Your task to perform on an android device: Go to Wikipedia Image 0: 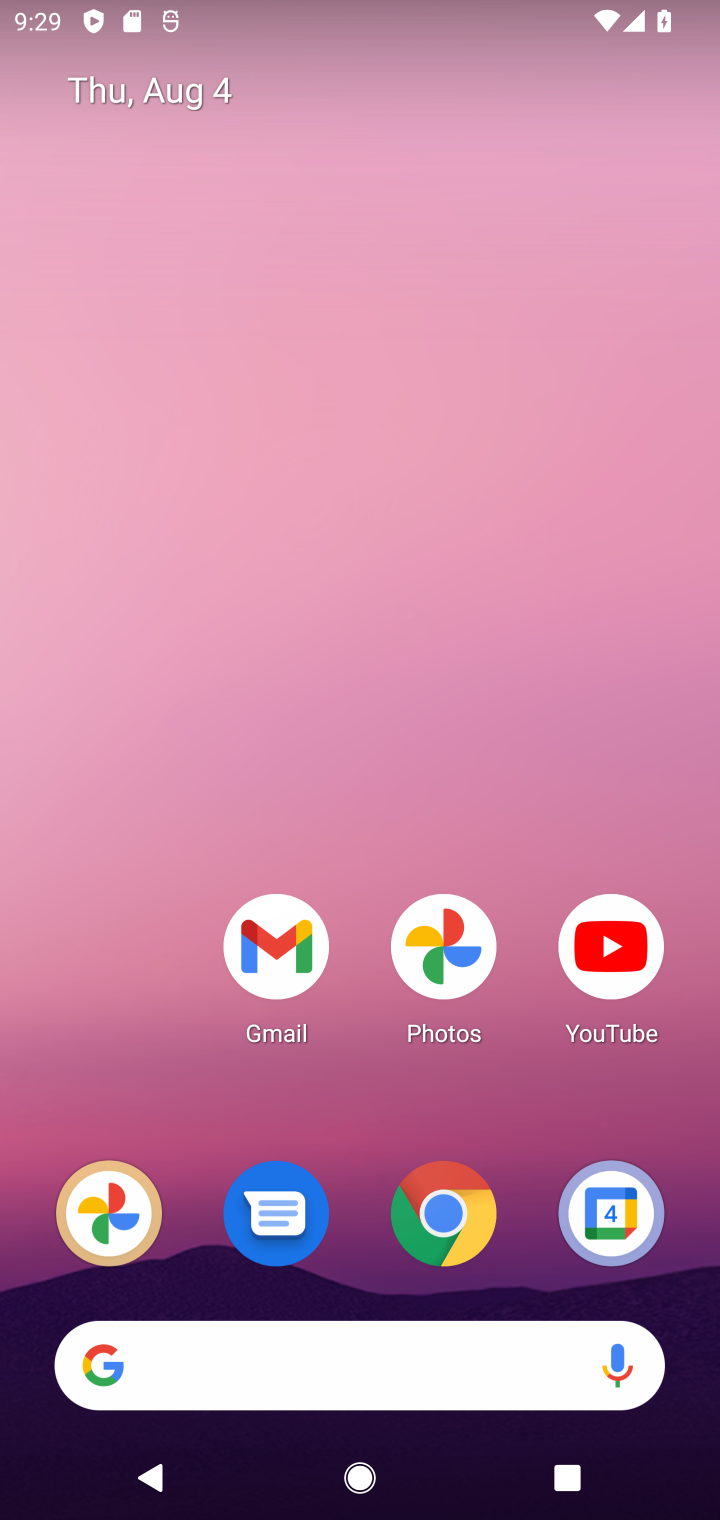
Step 0: press home button
Your task to perform on an android device: Go to Wikipedia Image 1: 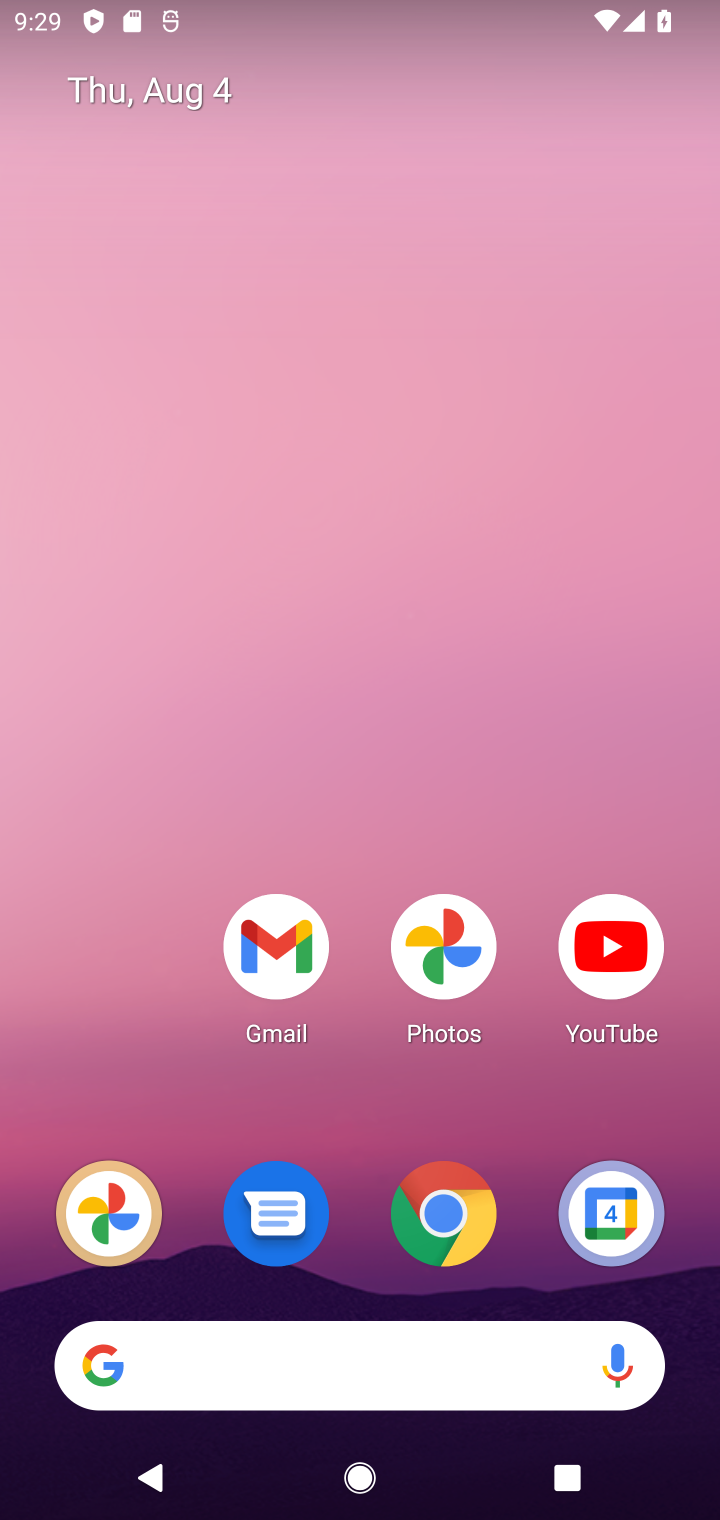
Step 1: drag from (371, 1144) to (371, 117)
Your task to perform on an android device: Go to Wikipedia Image 2: 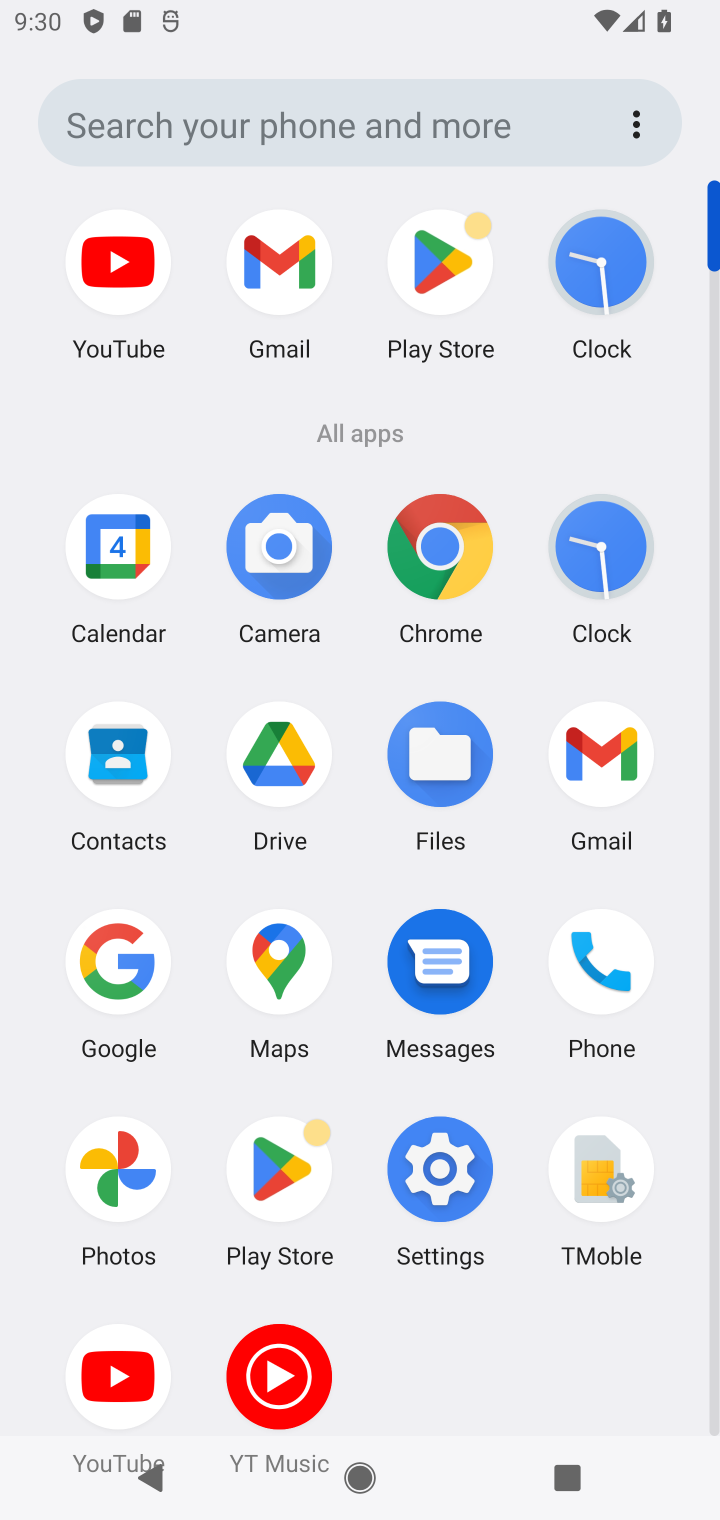
Step 2: click (434, 544)
Your task to perform on an android device: Go to Wikipedia Image 3: 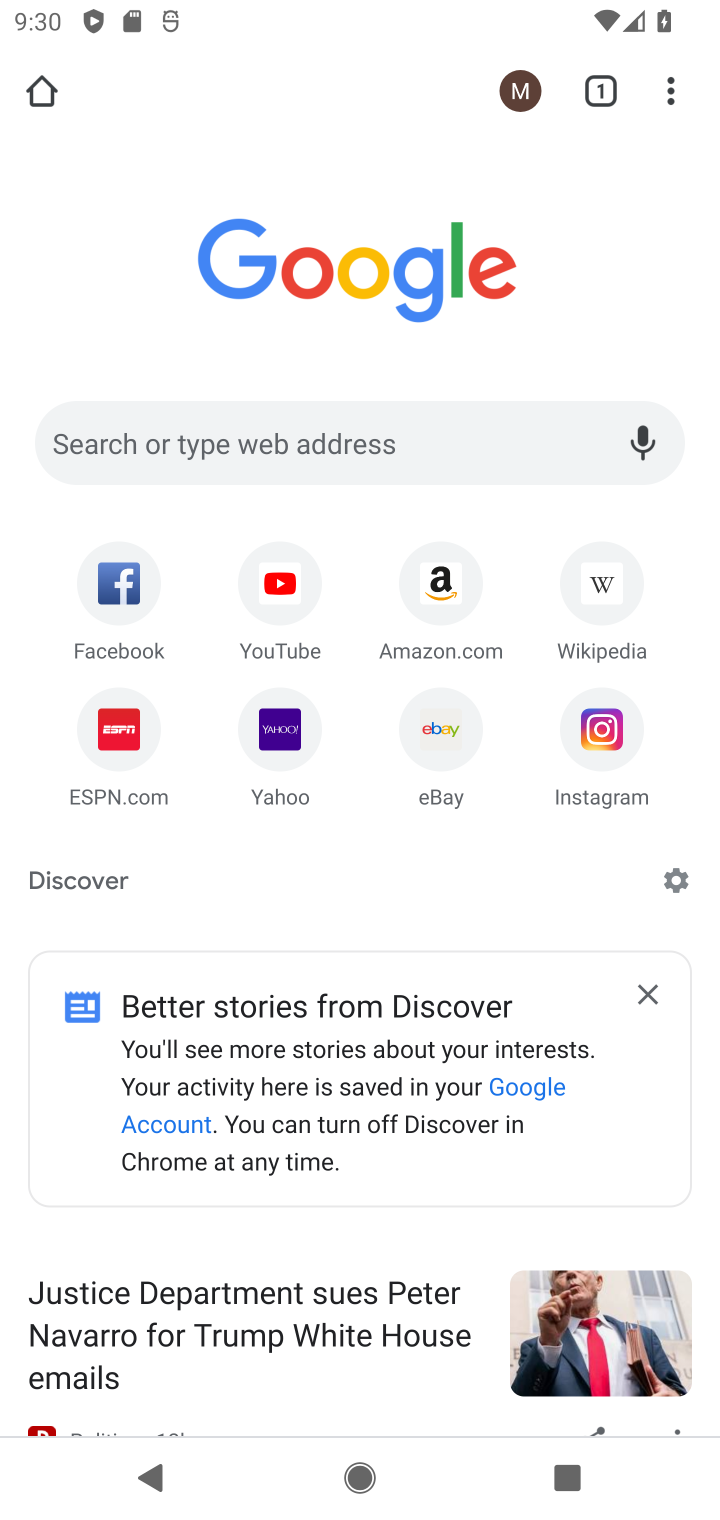
Step 3: click (596, 586)
Your task to perform on an android device: Go to Wikipedia Image 4: 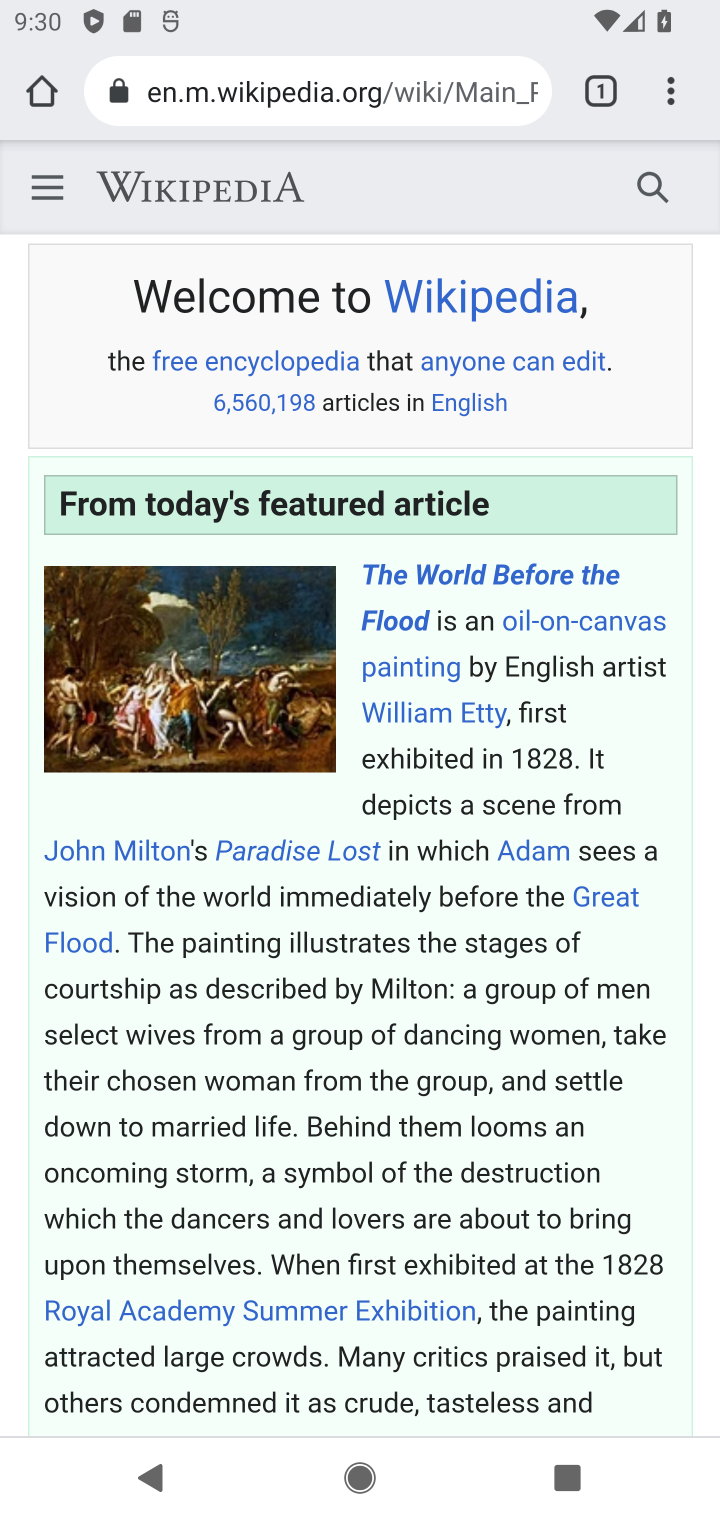
Step 4: task complete